Your task to perform on an android device: turn on the 12-hour format for clock Image 0: 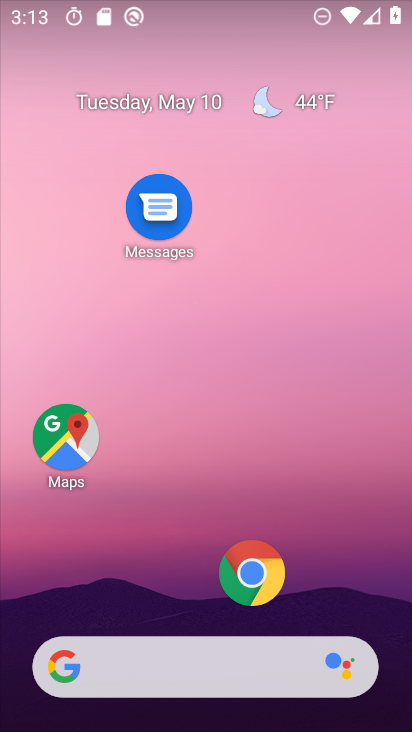
Step 0: drag from (139, 623) to (192, 236)
Your task to perform on an android device: turn on the 12-hour format for clock Image 1: 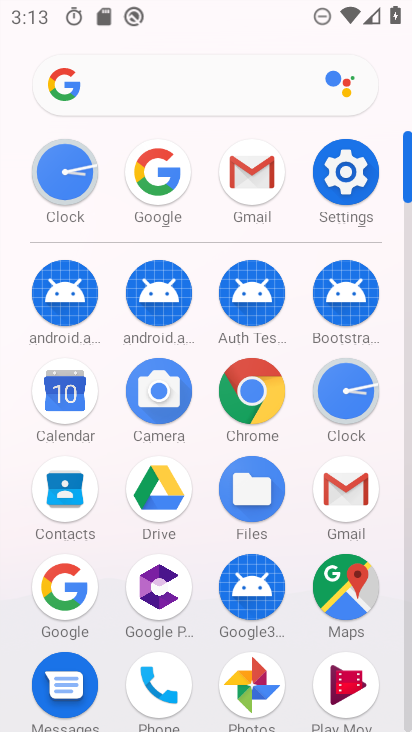
Step 1: click (347, 376)
Your task to perform on an android device: turn on the 12-hour format for clock Image 2: 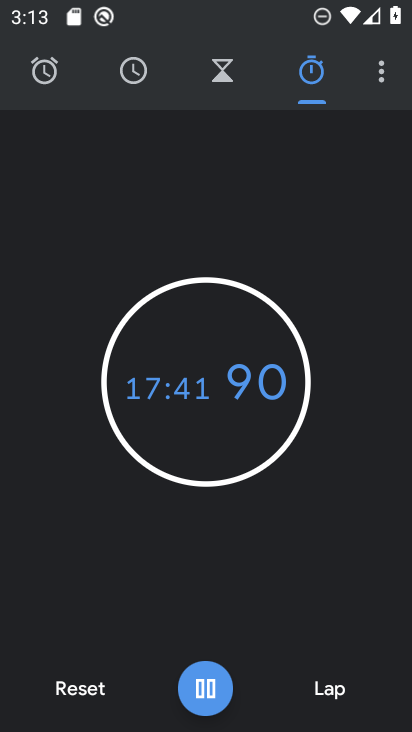
Step 2: click (372, 74)
Your task to perform on an android device: turn on the 12-hour format for clock Image 3: 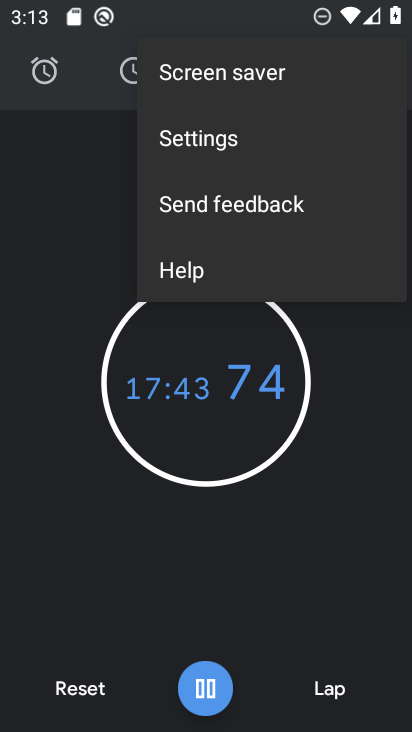
Step 3: click (282, 145)
Your task to perform on an android device: turn on the 12-hour format for clock Image 4: 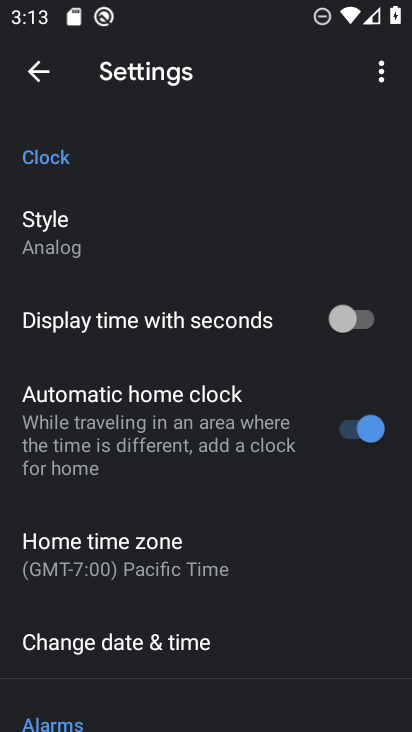
Step 4: drag from (197, 576) to (223, 383)
Your task to perform on an android device: turn on the 12-hour format for clock Image 5: 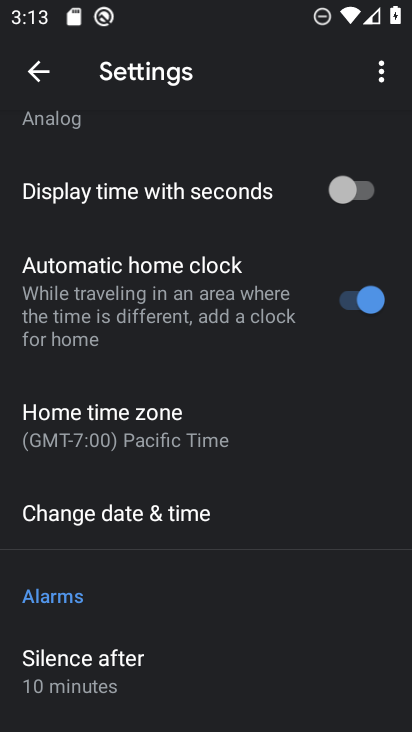
Step 5: click (131, 527)
Your task to perform on an android device: turn on the 12-hour format for clock Image 6: 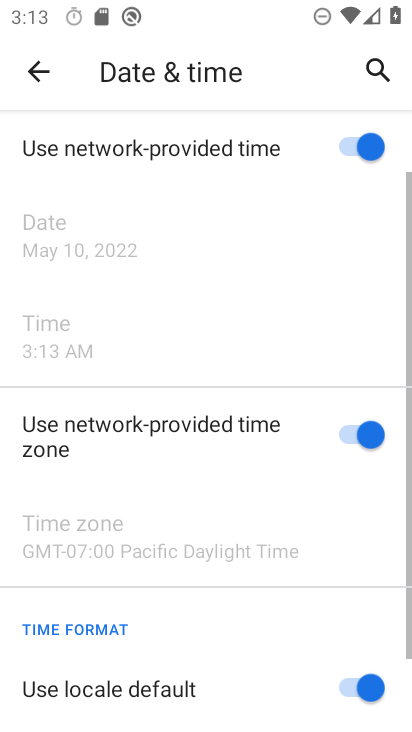
Step 6: task complete